Your task to perform on an android device: visit the assistant section in the google photos Image 0: 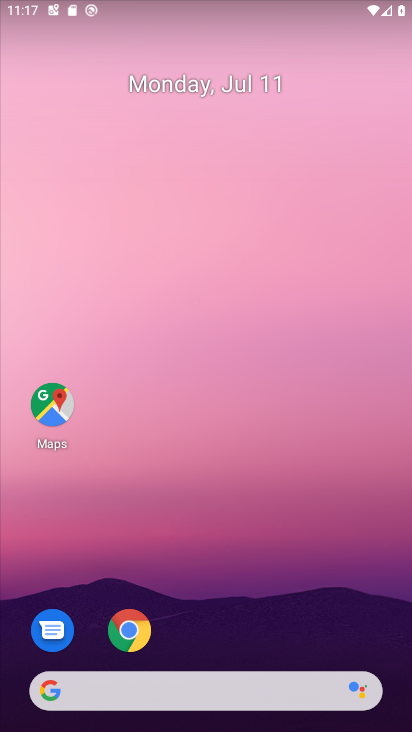
Step 0: drag from (206, 610) to (262, 0)
Your task to perform on an android device: visit the assistant section in the google photos Image 1: 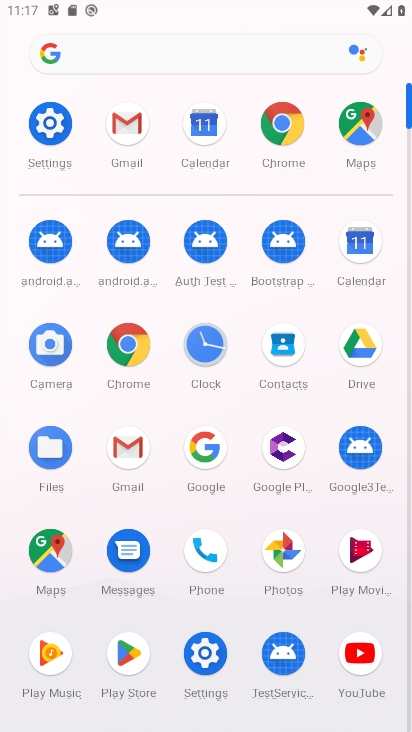
Step 1: click (289, 567)
Your task to perform on an android device: visit the assistant section in the google photos Image 2: 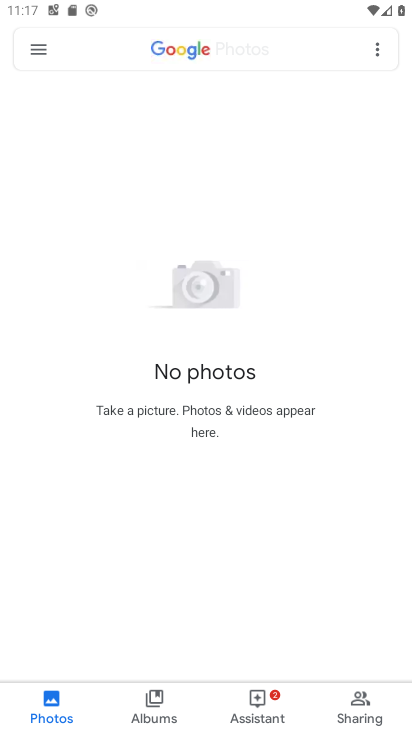
Step 2: click (262, 707)
Your task to perform on an android device: visit the assistant section in the google photos Image 3: 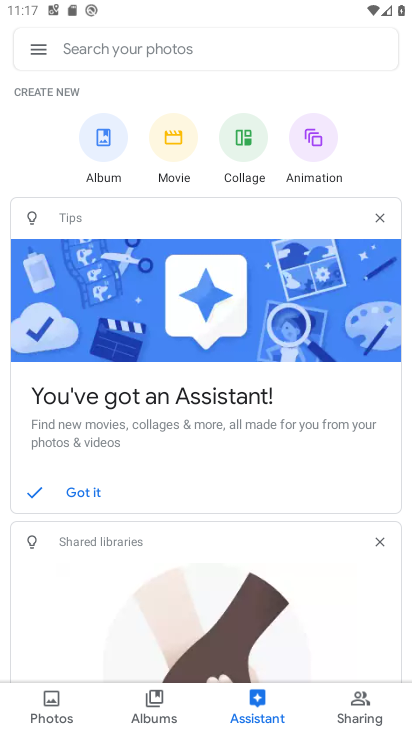
Step 3: task complete